Your task to perform on an android device: all mails in gmail Image 0: 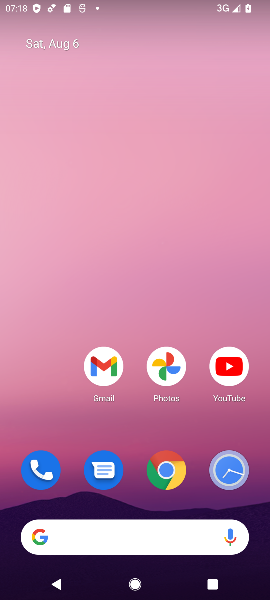
Step 0: press home button
Your task to perform on an android device: all mails in gmail Image 1: 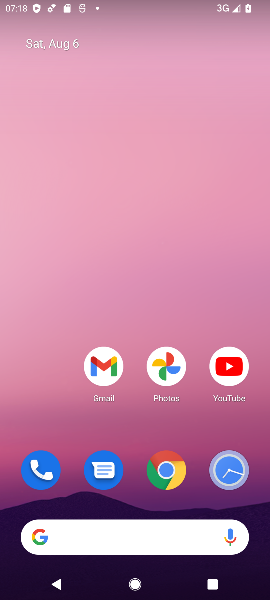
Step 1: press home button
Your task to perform on an android device: all mails in gmail Image 2: 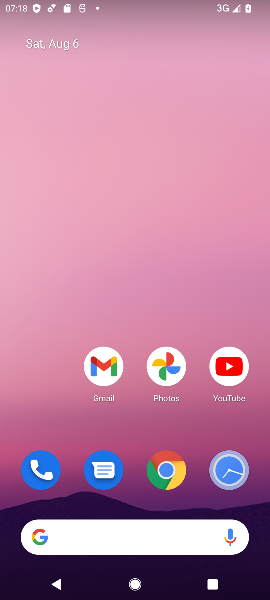
Step 2: press home button
Your task to perform on an android device: all mails in gmail Image 3: 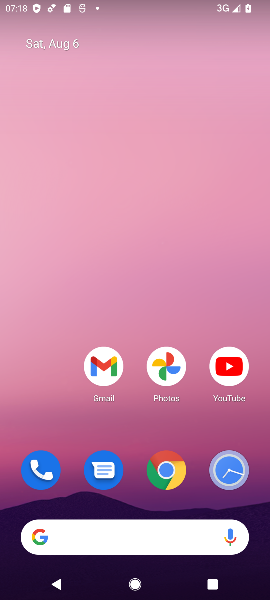
Step 3: drag from (22, 449) to (40, 301)
Your task to perform on an android device: all mails in gmail Image 4: 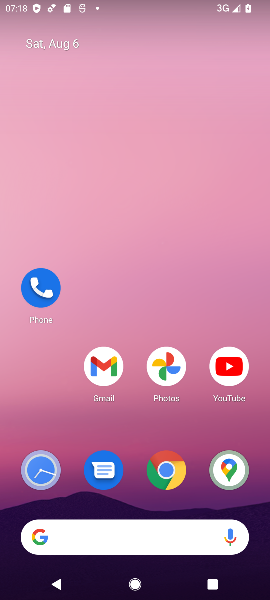
Step 4: drag from (36, 391) to (99, 80)
Your task to perform on an android device: all mails in gmail Image 5: 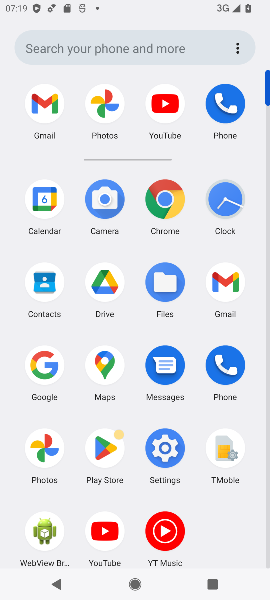
Step 5: click (41, 124)
Your task to perform on an android device: all mails in gmail Image 6: 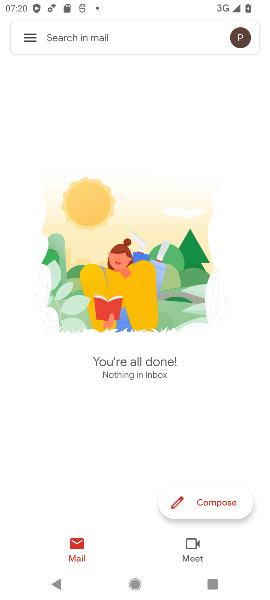
Step 6: click (30, 33)
Your task to perform on an android device: all mails in gmail Image 7: 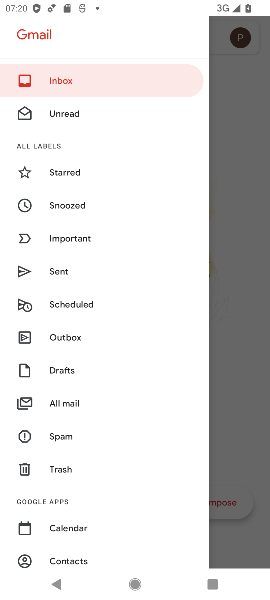
Step 7: click (70, 410)
Your task to perform on an android device: all mails in gmail Image 8: 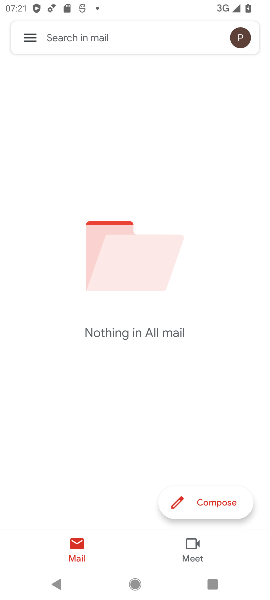
Step 8: task complete